Your task to perform on an android device: open the mobile data screen to see how much data has been used Image 0: 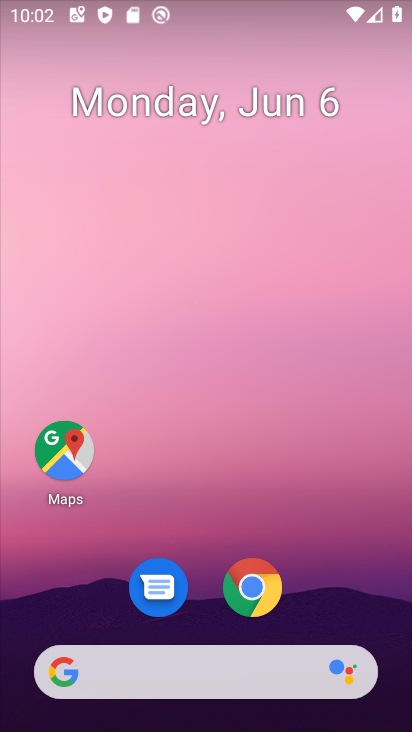
Step 0: drag from (208, 609) to (325, 62)
Your task to perform on an android device: open the mobile data screen to see how much data has been used Image 1: 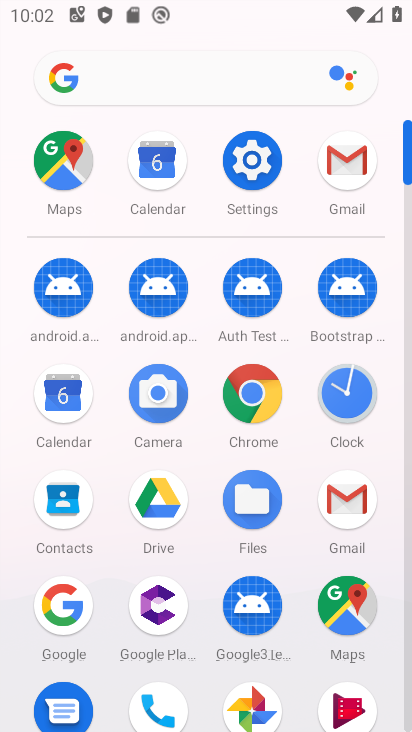
Step 1: click (268, 167)
Your task to perform on an android device: open the mobile data screen to see how much data has been used Image 2: 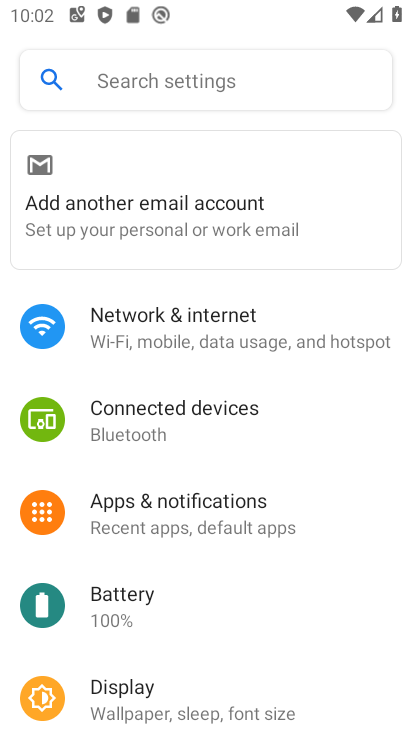
Step 2: click (216, 315)
Your task to perform on an android device: open the mobile data screen to see how much data has been used Image 3: 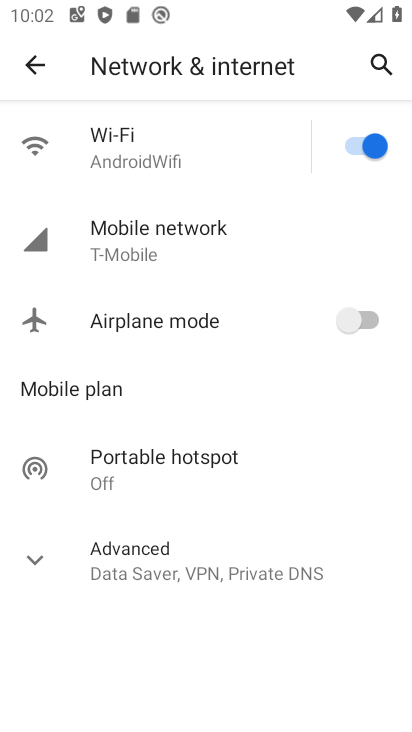
Step 3: click (249, 223)
Your task to perform on an android device: open the mobile data screen to see how much data has been used Image 4: 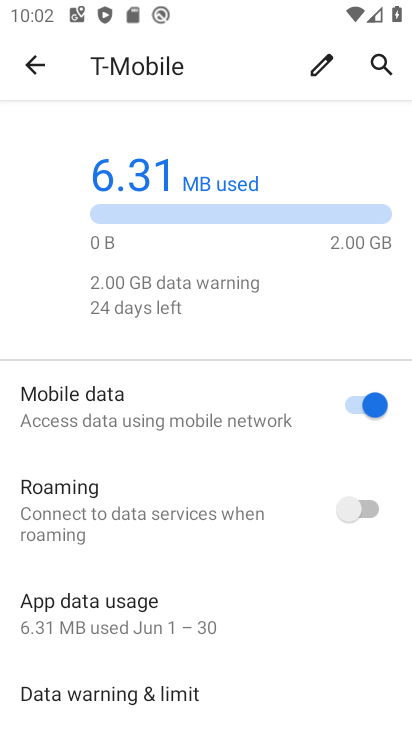
Step 4: task complete